Your task to perform on an android device: manage bookmarks in the chrome app Image 0: 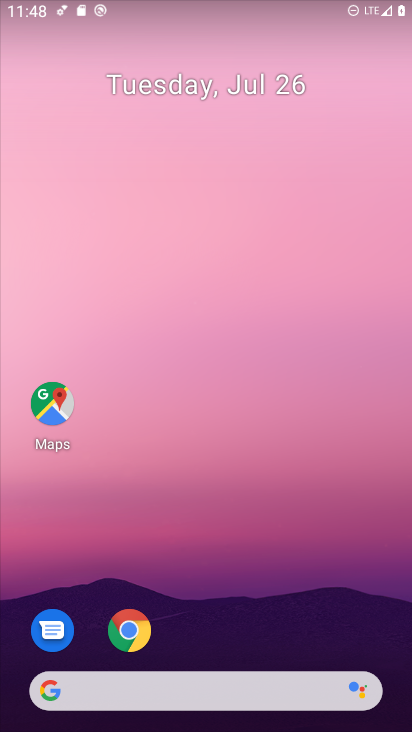
Step 0: click (131, 631)
Your task to perform on an android device: manage bookmarks in the chrome app Image 1: 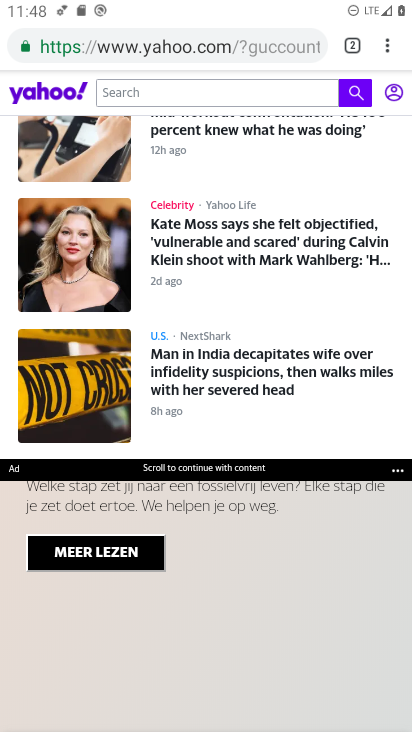
Step 1: click (386, 51)
Your task to perform on an android device: manage bookmarks in the chrome app Image 2: 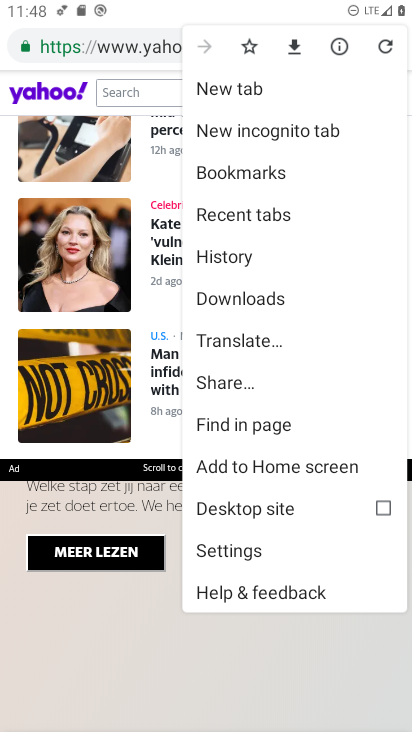
Step 2: click (229, 172)
Your task to perform on an android device: manage bookmarks in the chrome app Image 3: 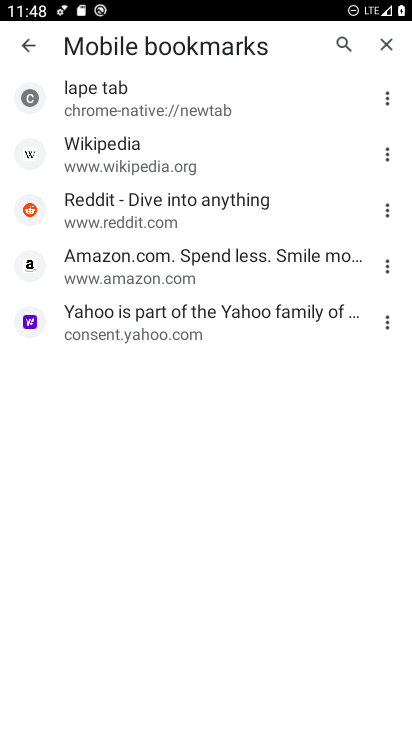
Step 3: click (101, 187)
Your task to perform on an android device: manage bookmarks in the chrome app Image 4: 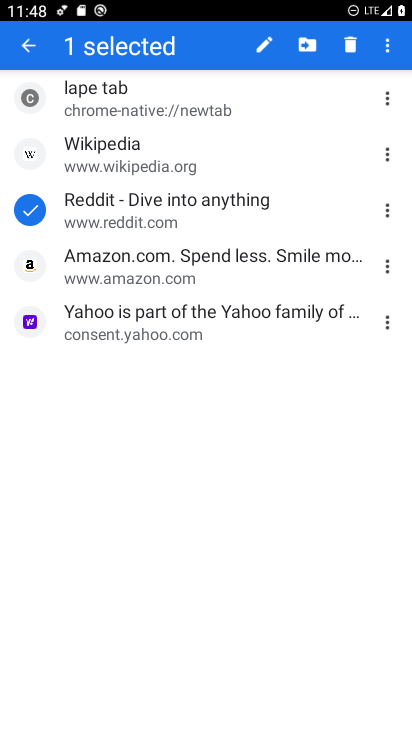
Step 4: click (308, 44)
Your task to perform on an android device: manage bookmarks in the chrome app Image 5: 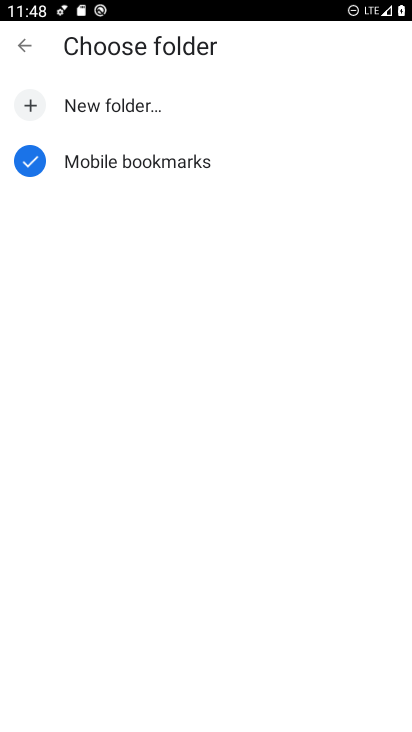
Step 5: click (30, 102)
Your task to perform on an android device: manage bookmarks in the chrome app Image 6: 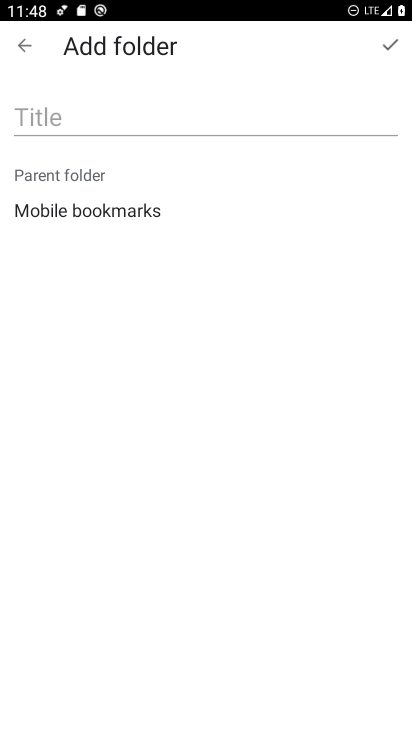
Step 6: click (79, 116)
Your task to perform on an android device: manage bookmarks in the chrome app Image 7: 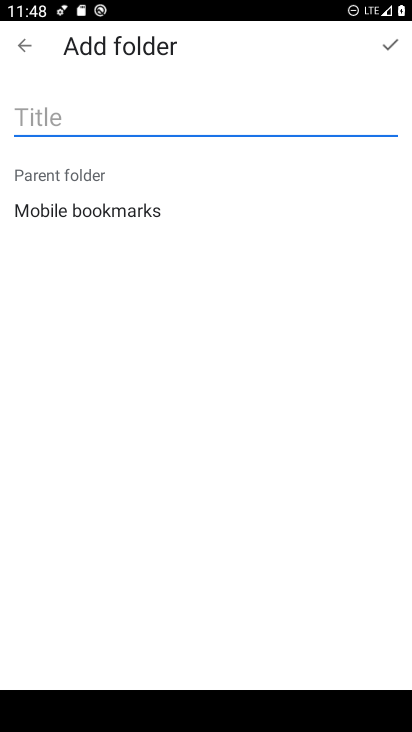
Step 7: type "iouittewttop"
Your task to perform on an android device: manage bookmarks in the chrome app Image 8: 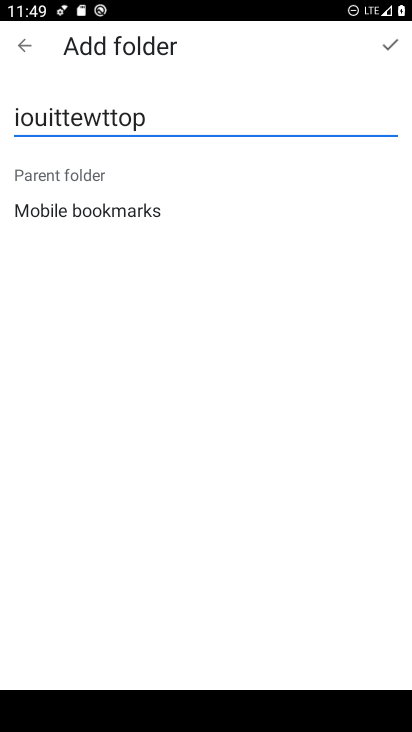
Step 8: click (385, 42)
Your task to perform on an android device: manage bookmarks in the chrome app Image 9: 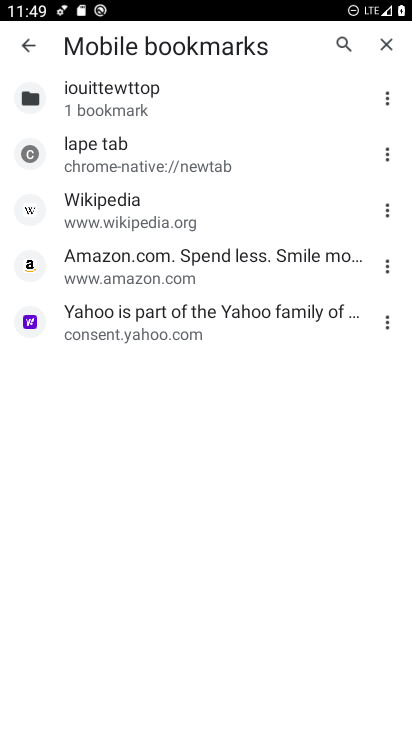
Step 9: task complete